Your task to perform on an android device: Open Youtube and go to the subscriptions tab Image 0: 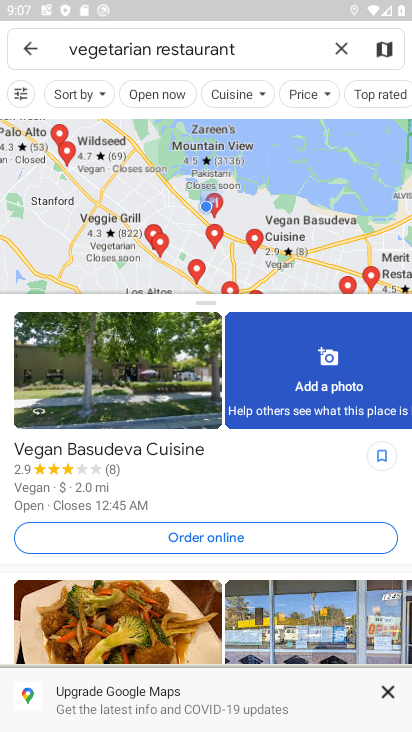
Step 0: press home button
Your task to perform on an android device: Open Youtube and go to the subscriptions tab Image 1: 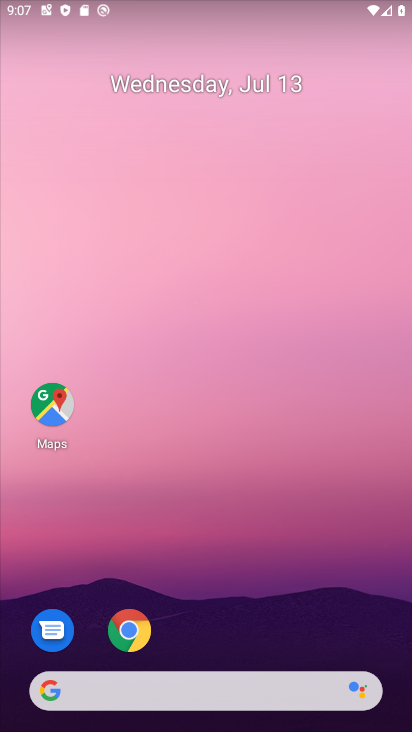
Step 1: drag from (246, 623) to (292, 14)
Your task to perform on an android device: Open Youtube and go to the subscriptions tab Image 2: 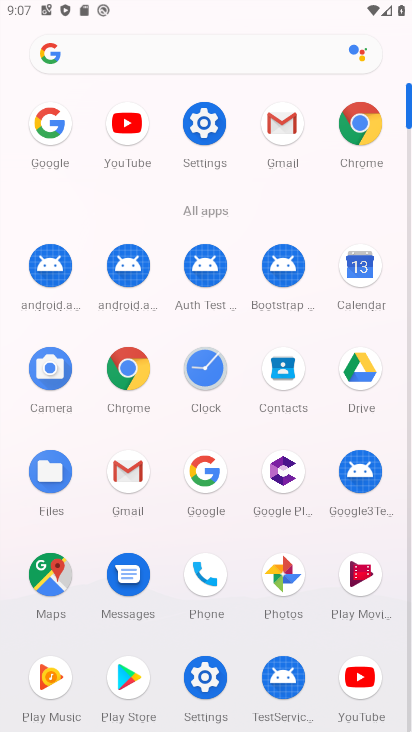
Step 2: click (360, 700)
Your task to perform on an android device: Open Youtube and go to the subscriptions tab Image 3: 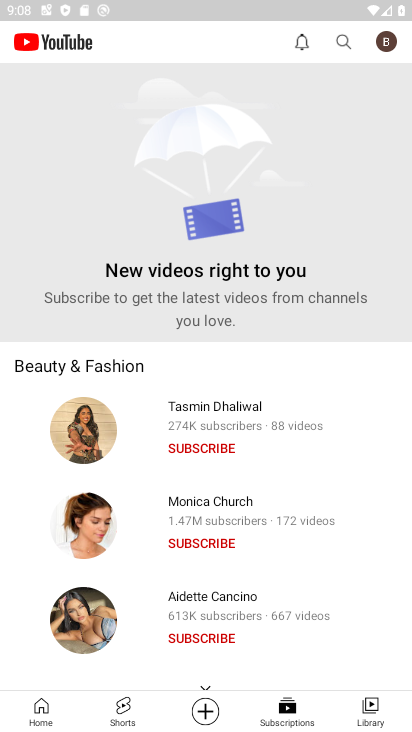
Step 3: click (294, 705)
Your task to perform on an android device: Open Youtube and go to the subscriptions tab Image 4: 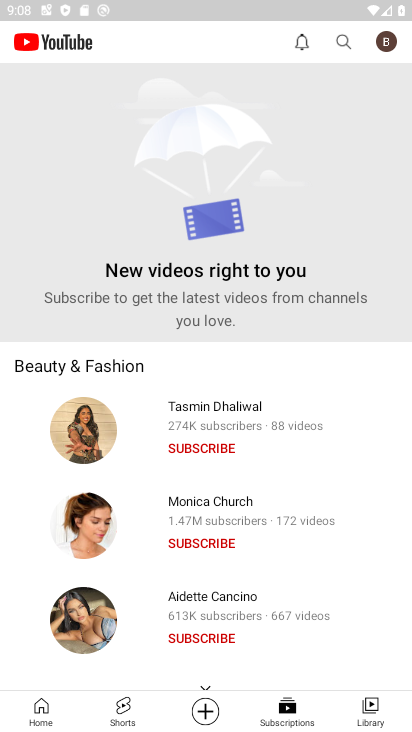
Step 4: task complete